Your task to perform on an android device: Show me recent news Image 0: 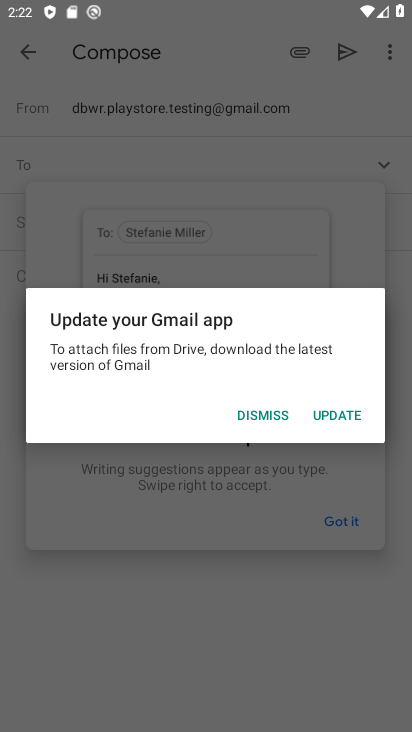
Step 0: press home button
Your task to perform on an android device: Show me recent news Image 1: 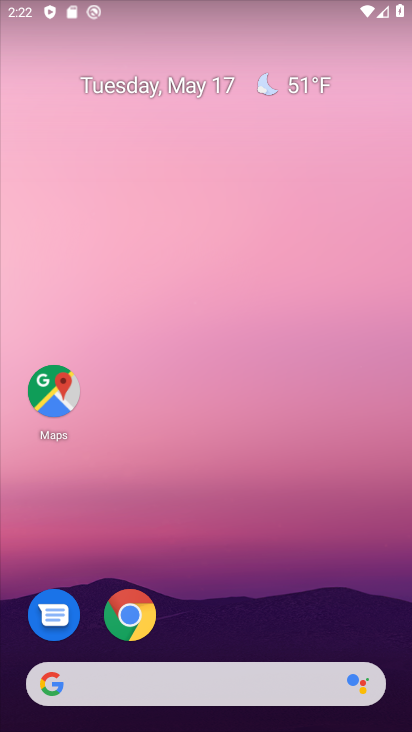
Step 1: task complete